Your task to perform on an android device: Open Google Image 0: 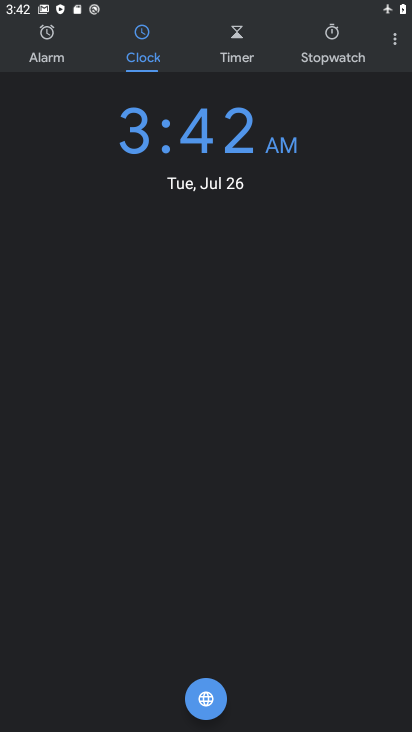
Step 0: press home button
Your task to perform on an android device: Open Google Image 1: 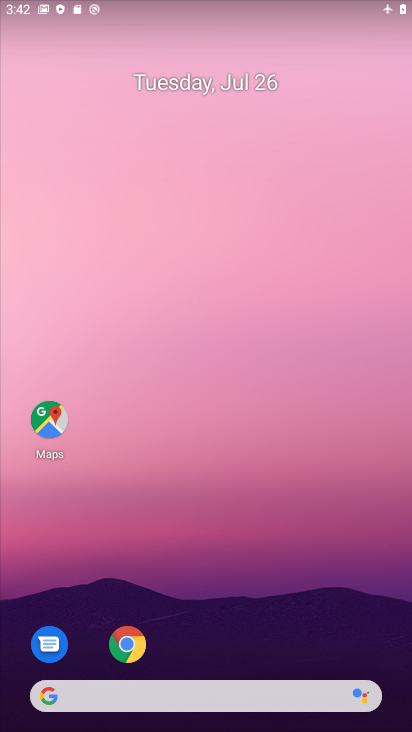
Step 1: click (127, 645)
Your task to perform on an android device: Open Google Image 2: 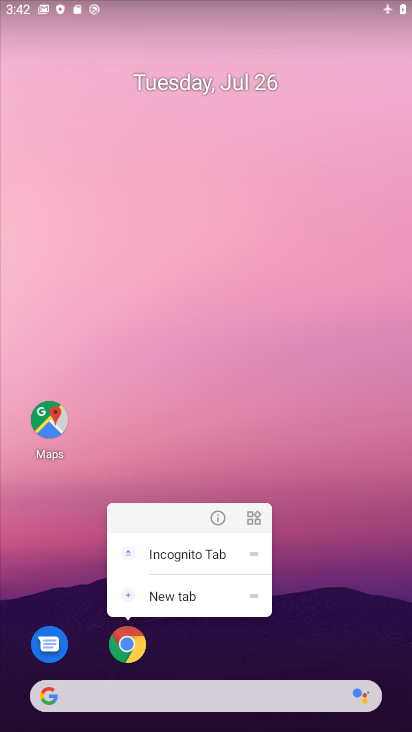
Step 2: click (125, 640)
Your task to perform on an android device: Open Google Image 3: 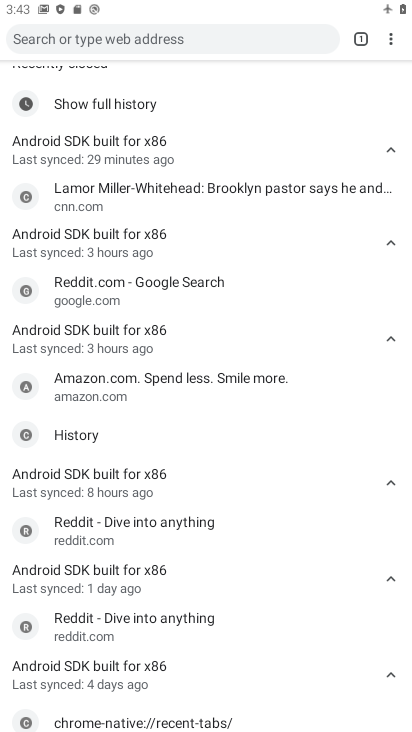
Step 3: task complete